Your task to perform on an android device: choose inbox layout in the gmail app Image 0: 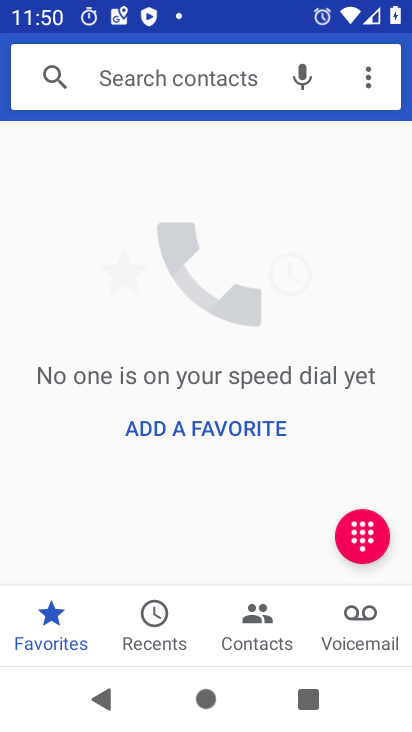
Step 0: drag from (232, 590) to (268, 115)
Your task to perform on an android device: choose inbox layout in the gmail app Image 1: 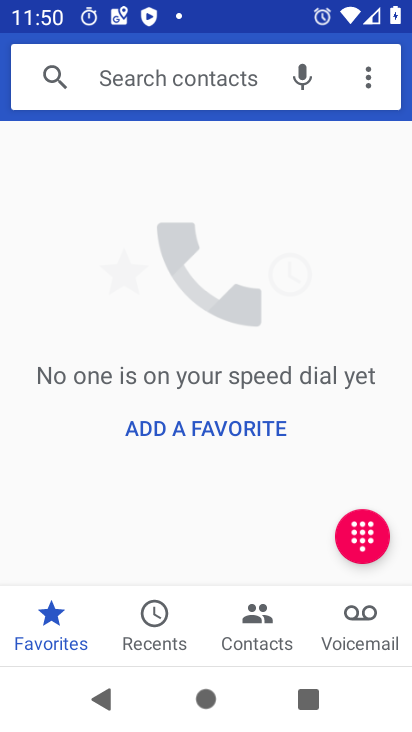
Step 1: press home button
Your task to perform on an android device: choose inbox layout in the gmail app Image 2: 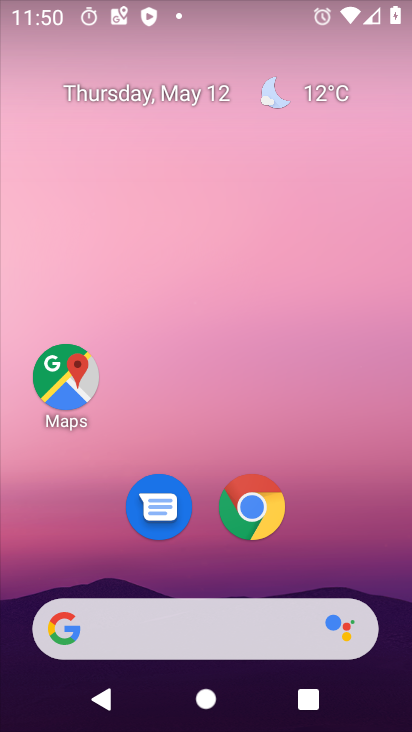
Step 2: drag from (209, 544) to (243, 112)
Your task to perform on an android device: choose inbox layout in the gmail app Image 3: 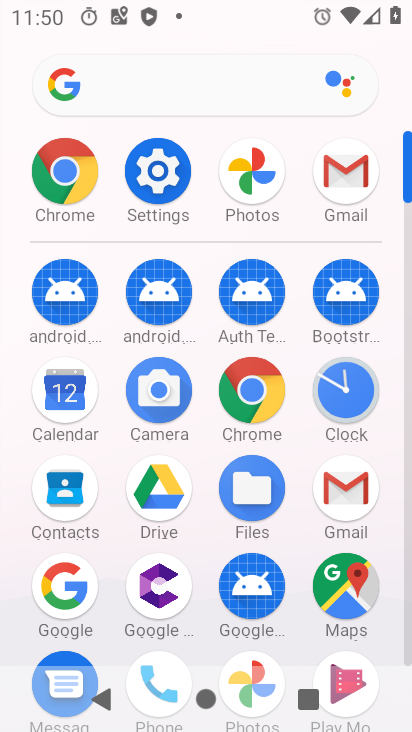
Step 3: click (326, 502)
Your task to perform on an android device: choose inbox layout in the gmail app Image 4: 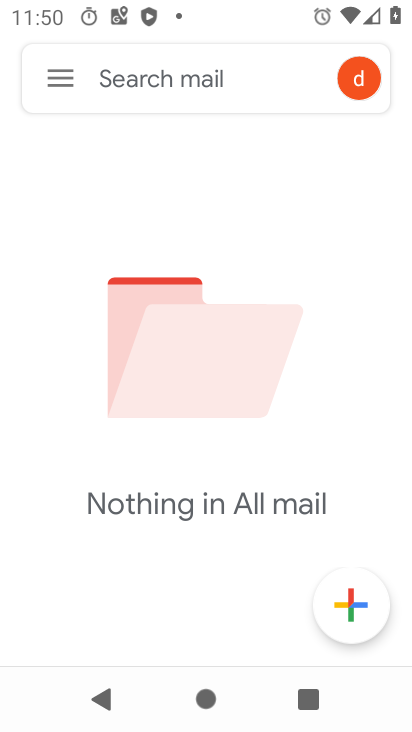
Step 4: click (63, 75)
Your task to perform on an android device: choose inbox layout in the gmail app Image 5: 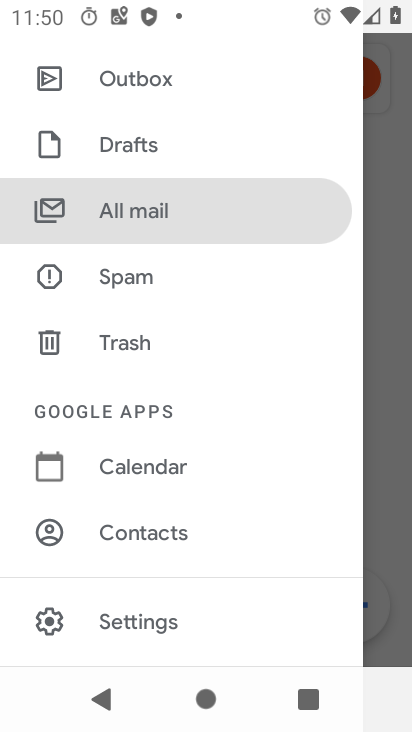
Step 5: drag from (145, 554) to (146, 97)
Your task to perform on an android device: choose inbox layout in the gmail app Image 6: 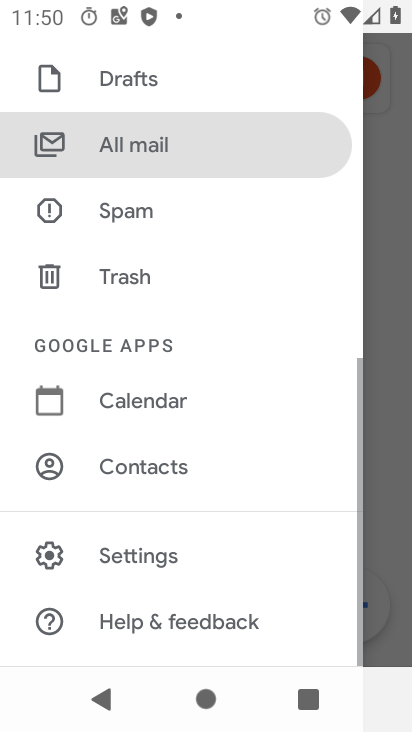
Step 6: click (125, 544)
Your task to perform on an android device: choose inbox layout in the gmail app Image 7: 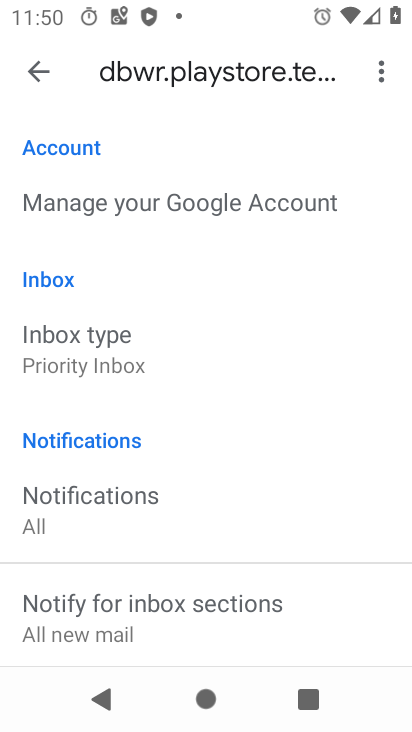
Step 7: click (119, 368)
Your task to perform on an android device: choose inbox layout in the gmail app Image 8: 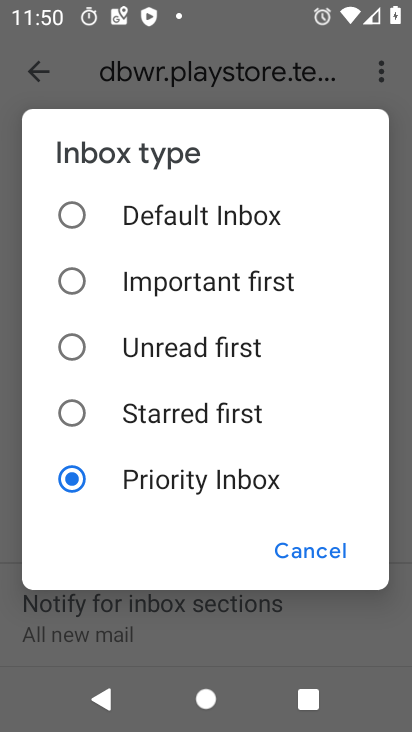
Step 8: click (75, 212)
Your task to perform on an android device: choose inbox layout in the gmail app Image 9: 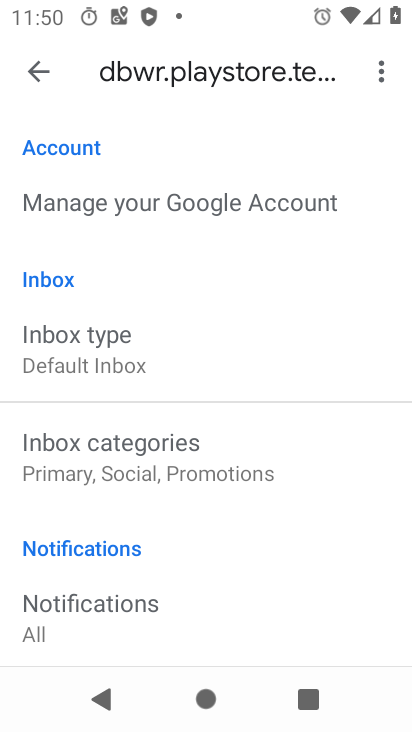
Step 9: task complete